Your task to perform on an android device: Open the Play Movies app and select the watchlist tab. Image 0: 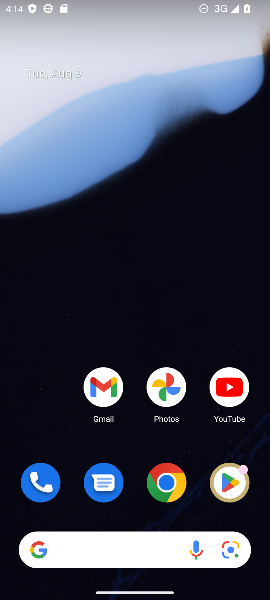
Step 0: drag from (154, 447) to (132, 113)
Your task to perform on an android device: Open the Play Movies app and select the watchlist tab. Image 1: 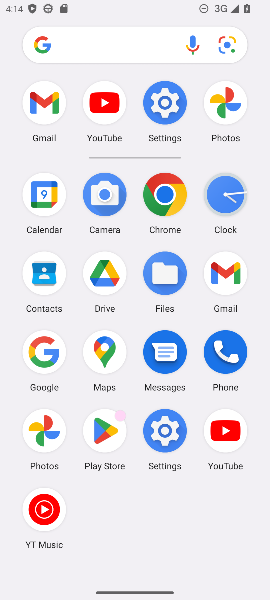
Step 1: task complete